Your task to perform on an android device: see sites visited before in the chrome app Image 0: 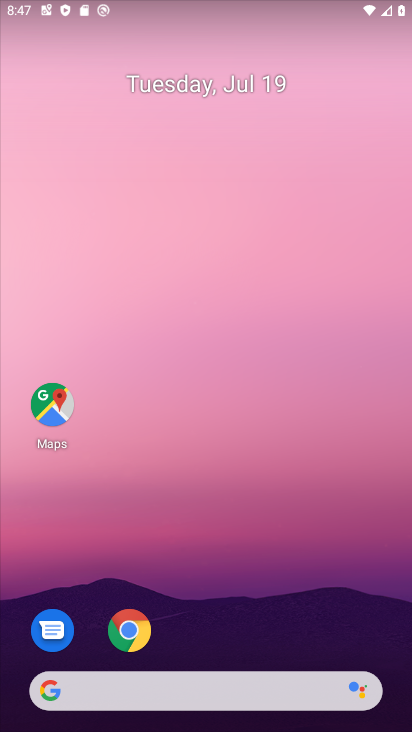
Step 0: click (134, 629)
Your task to perform on an android device: see sites visited before in the chrome app Image 1: 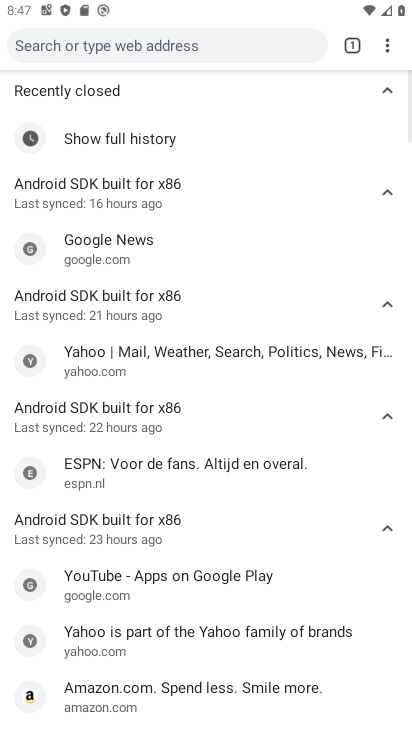
Step 1: click (382, 48)
Your task to perform on an android device: see sites visited before in the chrome app Image 2: 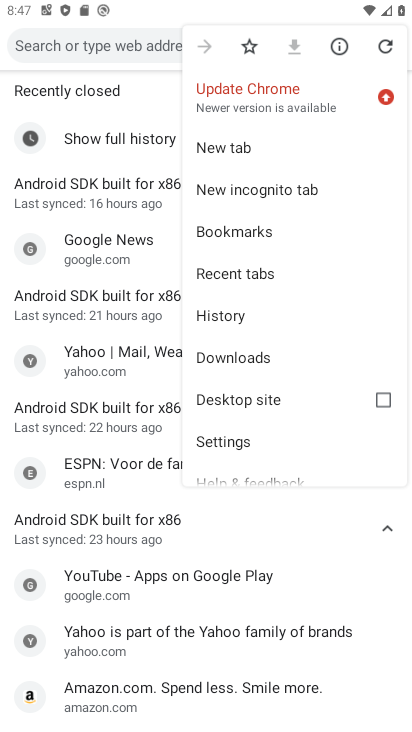
Step 2: click (246, 319)
Your task to perform on an android device: see sites visited before in the chrome app Image 3: 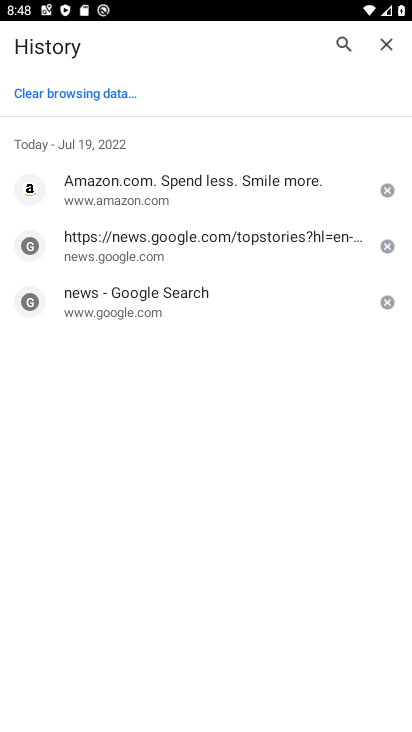
Step 3: task complete